Your task to perform on an android device: Open the calendar app, open the side menu, and click the "Day" option Image 0: 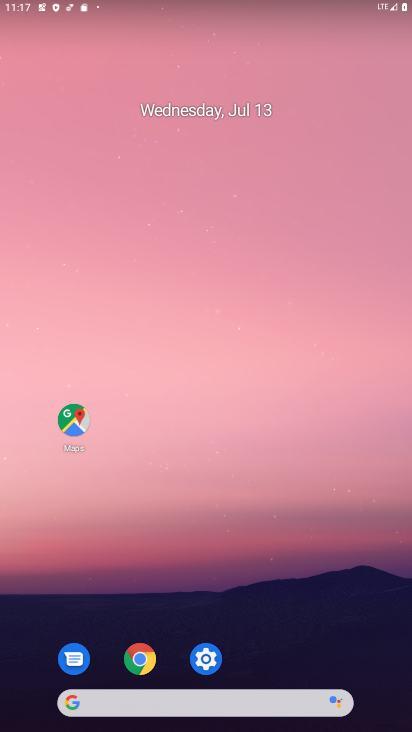
Step 0: click (219, 113)
Your task to perform on an android device: Open the calendar app, open the side menu, and click the "Day" option Image 1: 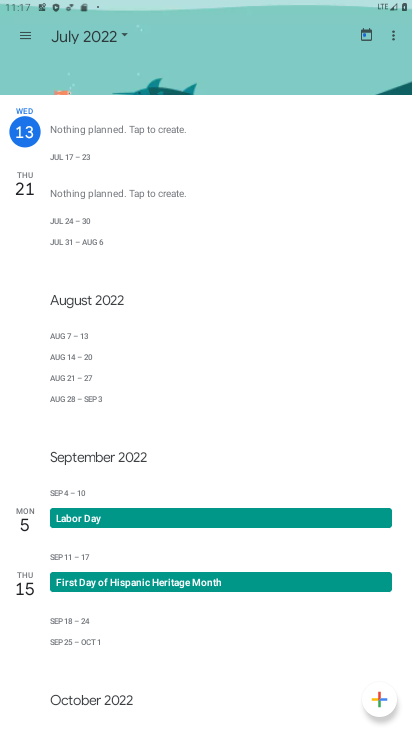
Step 1: click (175, 10)
Your task to perform on an android device: Open the calendar app, open the side menu, and click the "Day" option Image 2: 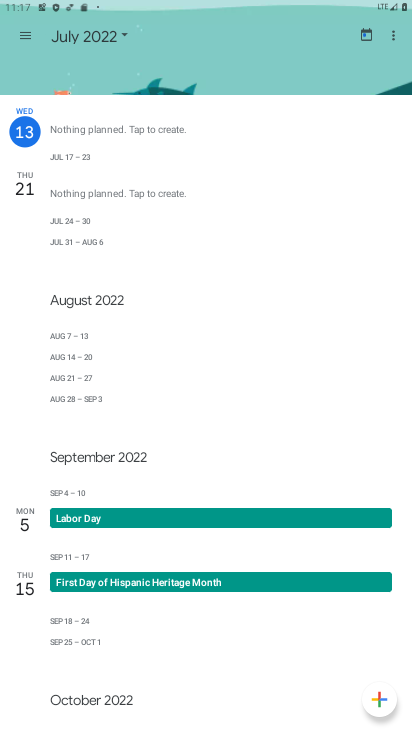
Step 2: press back button
Your task to perform on an android device: Open the calendar app, open the side menu, and click the "Day" option Image 3: 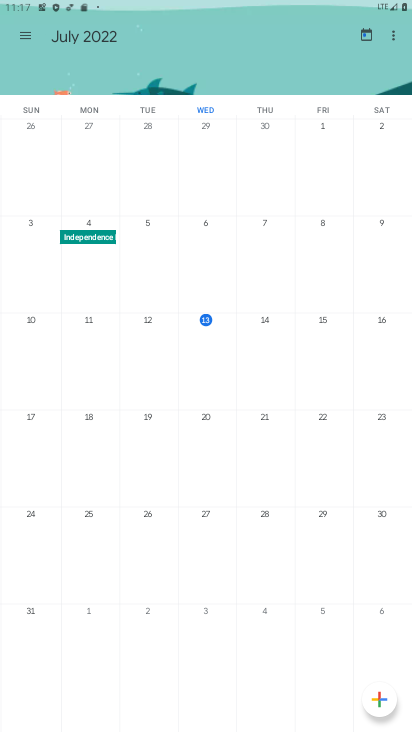
Step 3: click (20, 33)
Your task to perform on an android device: Open the calendar app, open the side menu, and click the "Day" option Image 4: 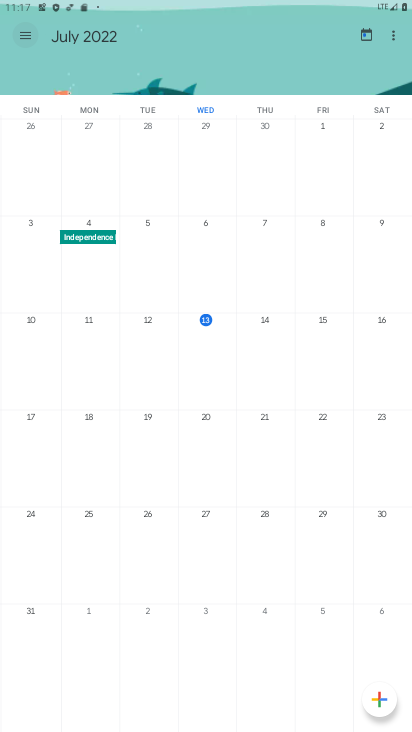
Step 4: click (20, 33)
Your task to perform on an android device: Open the calendar app, open the side menu, and click the "Day" option Image 5: 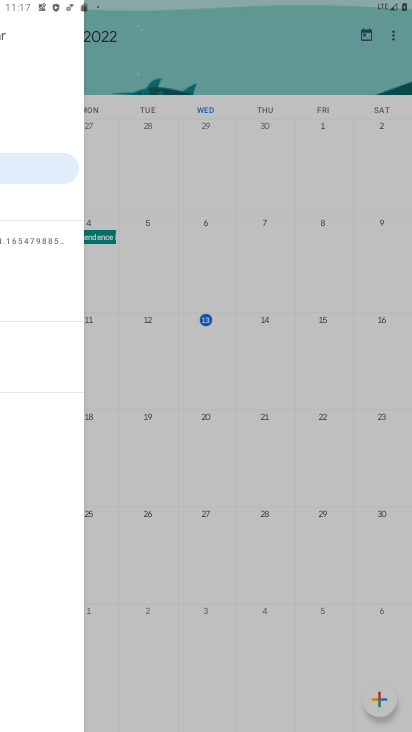
Step 5: drag from (20, 33) to (49, 96)
Your task to perform on an android device: Open the calendar app, open the side menu, and click the "Day" option Image 6: 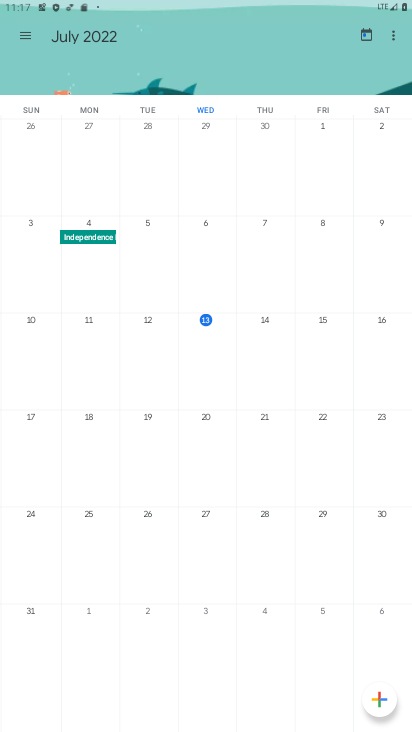
Step 6: drag from (25, 56) to (242, 316)
Your task to perform on an android device: Open the calendar app, open the side menu, and click the "Day" option Image 7: 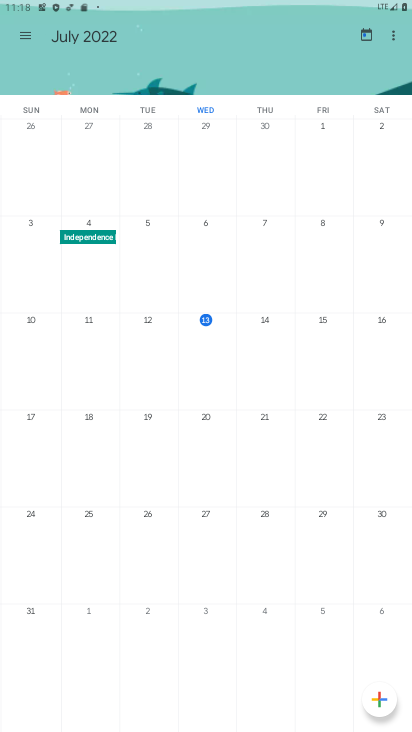
Step 7: click (27, 32)
Your task to perform on an android device: Open the calendar app, open the side menu, and click the "Day" option Image 8: 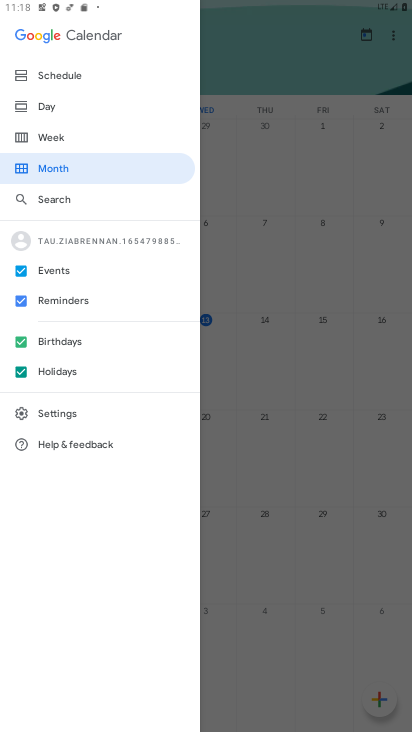
Step 8: click (54, 100)
Your task to perform on an android device: Open the calendar app, open the side menu, and click the "Day" option Image 9: 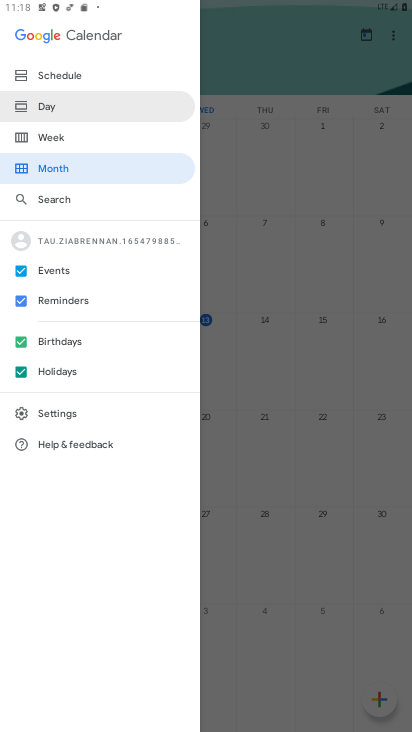
Step 9: click (55, 109)
Your task to perform on an android device: Open the calendar app, open the side menu, and click the "Day" option Image 10: 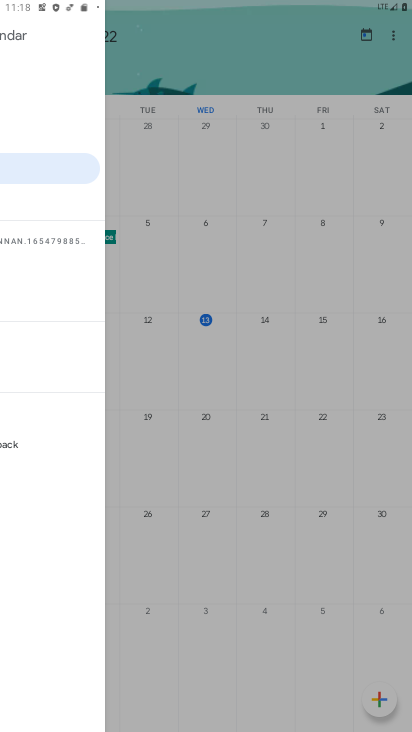
Step 10: click (56, 114)
Your task to perform on an android device: Open the calendar app, open the side menu, and click the "Day" option Image 11: 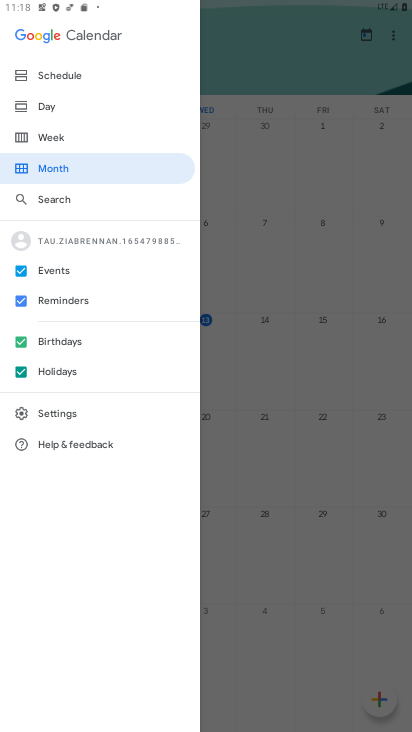
Step 11: click (56, 114)
Your task to perform on an android device: Open the calendar app, open the side menu, and click the "Day" option Image 12: 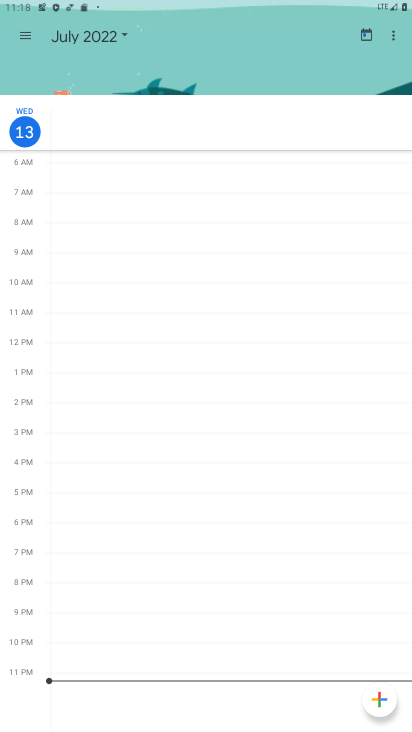
Step 12: click (32, 31)
Your task to perform on an android device: Open the calendar app, open the side menu, and click the "Day" option Image 13: 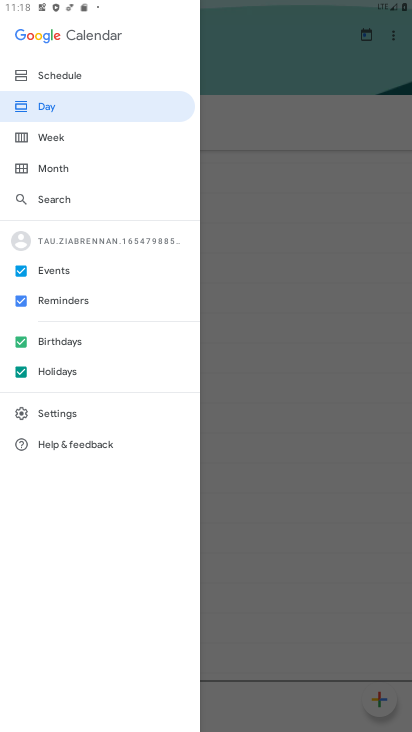
Step 13: click (75, 110)
Your task to perform on an android device: Open the calendar app, open the side menu, and click the "Day" option Image 14: 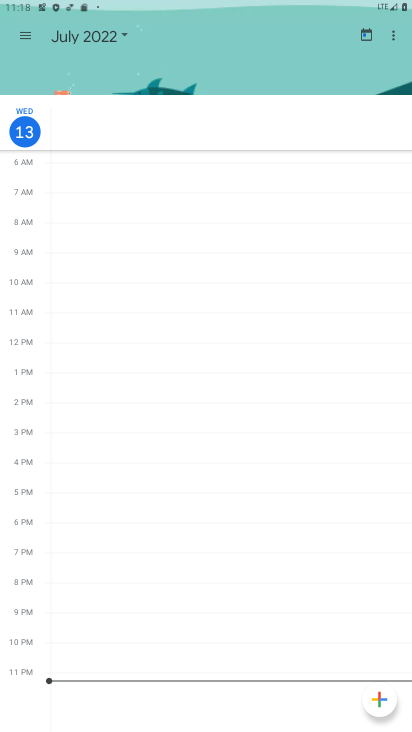
Step 14: task complete